Your task to perform on an android device: What's the weather today? Image 0: 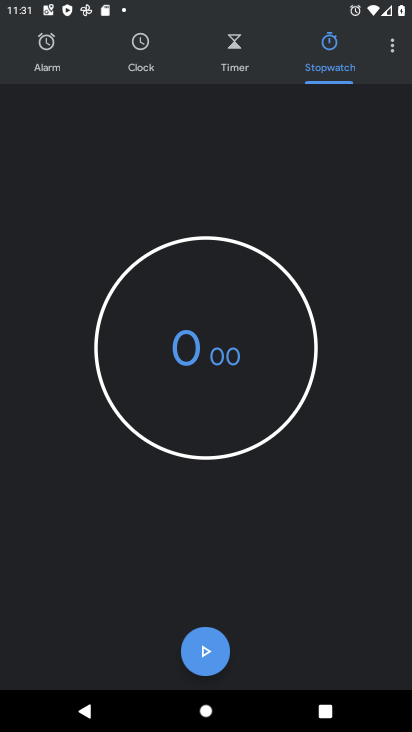
Step 0: press home button
Your task to perform on an android device: What's the weather today? Image 1: 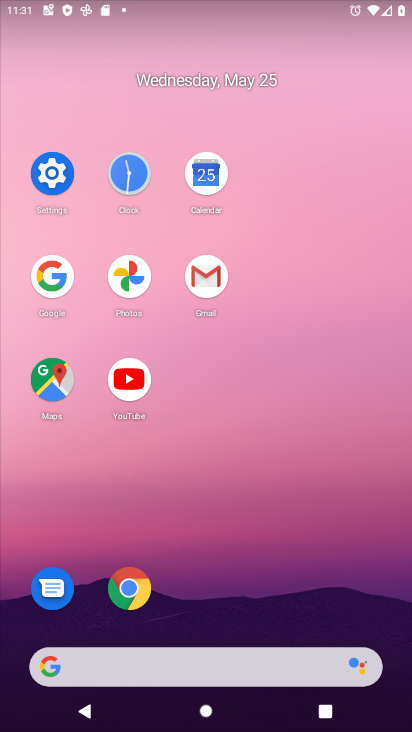
Step 1: click (69, 282)
Your task to perform on an android device: What's the weather today? Image 2: 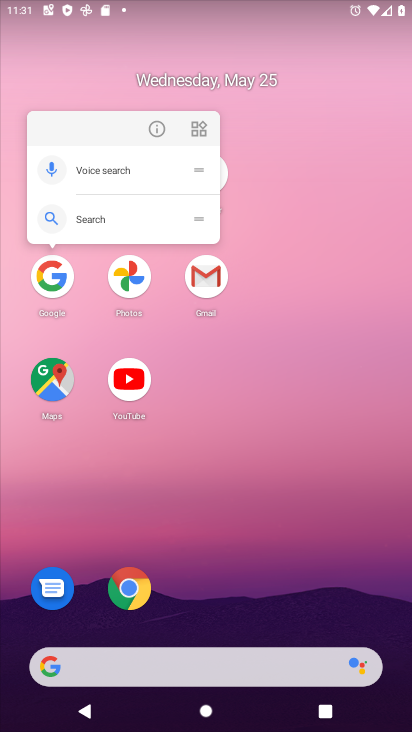
Step 2: click (62, 281)
Your task to perform on an android device: What's the weather today? Image 3: 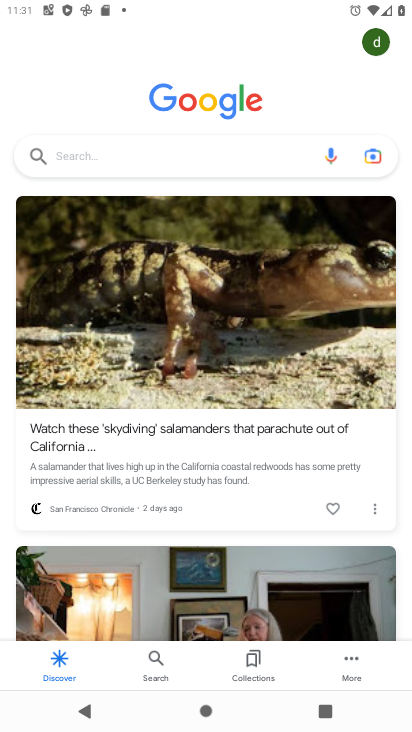
Step 3: click (91, 147)
Your task to perform on an android device: What's the weather today? Image 4: 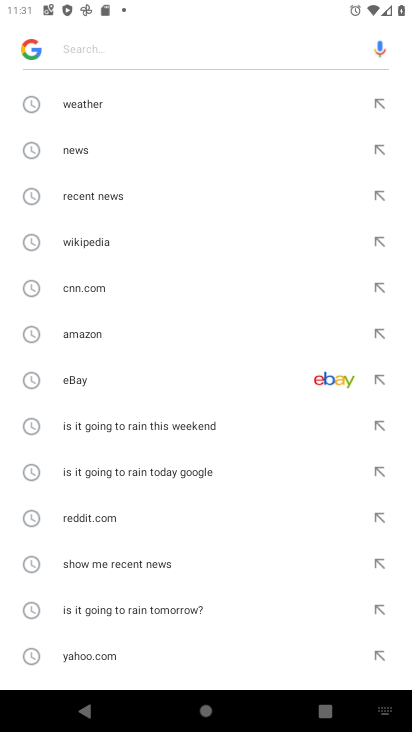
Step 4: click (117, 105)
Your task to perform on an android device: What's the weather today? Image 5: 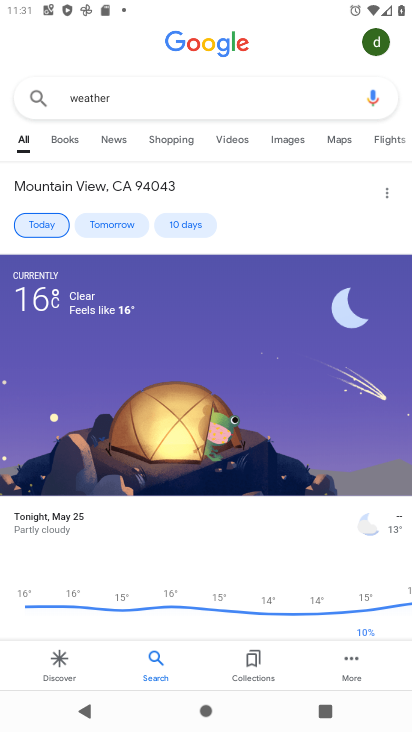
Step 5: task complete